Your task to perform on an android device: set default search engine in the chrome app Image 0: 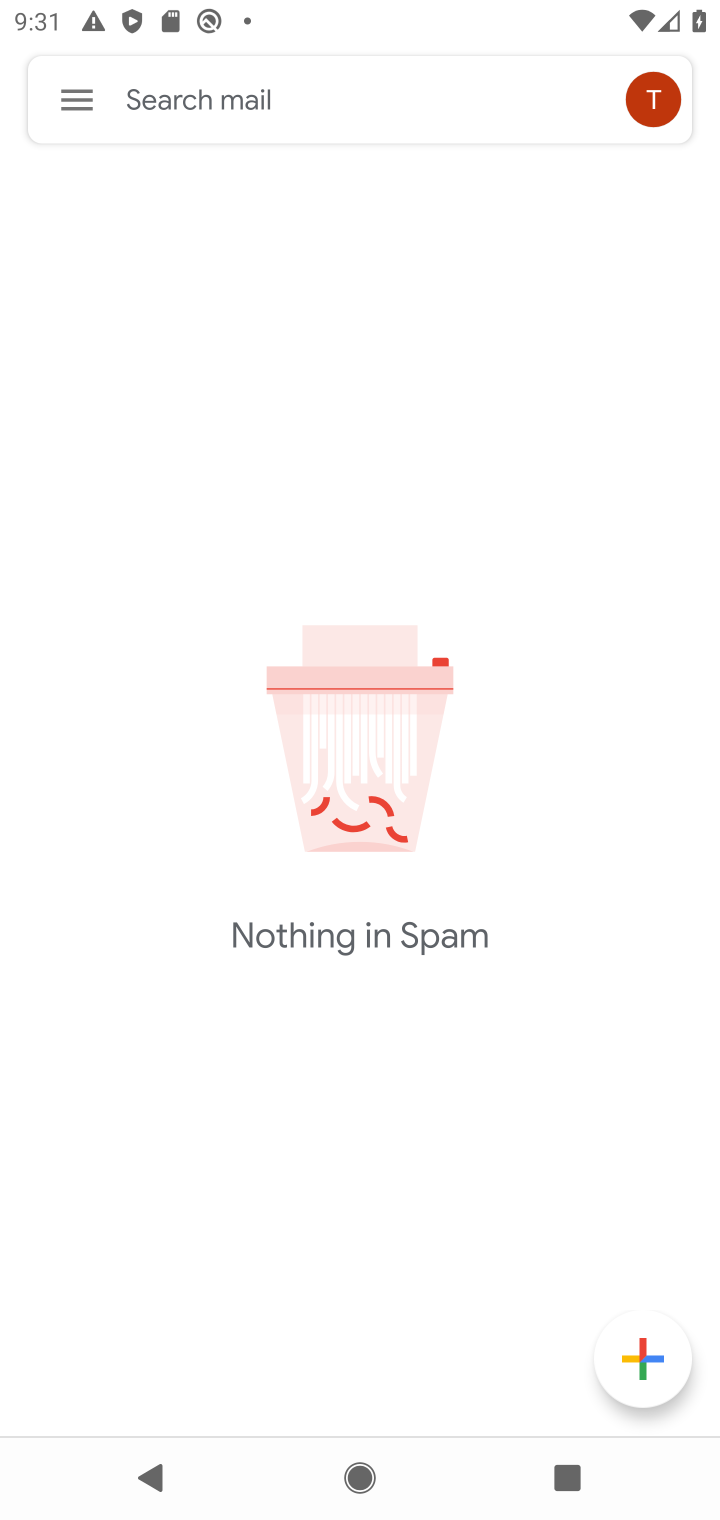
Step 0: press home button
Your task to perform on an android device: set default search engine in the chrome app Image 1: 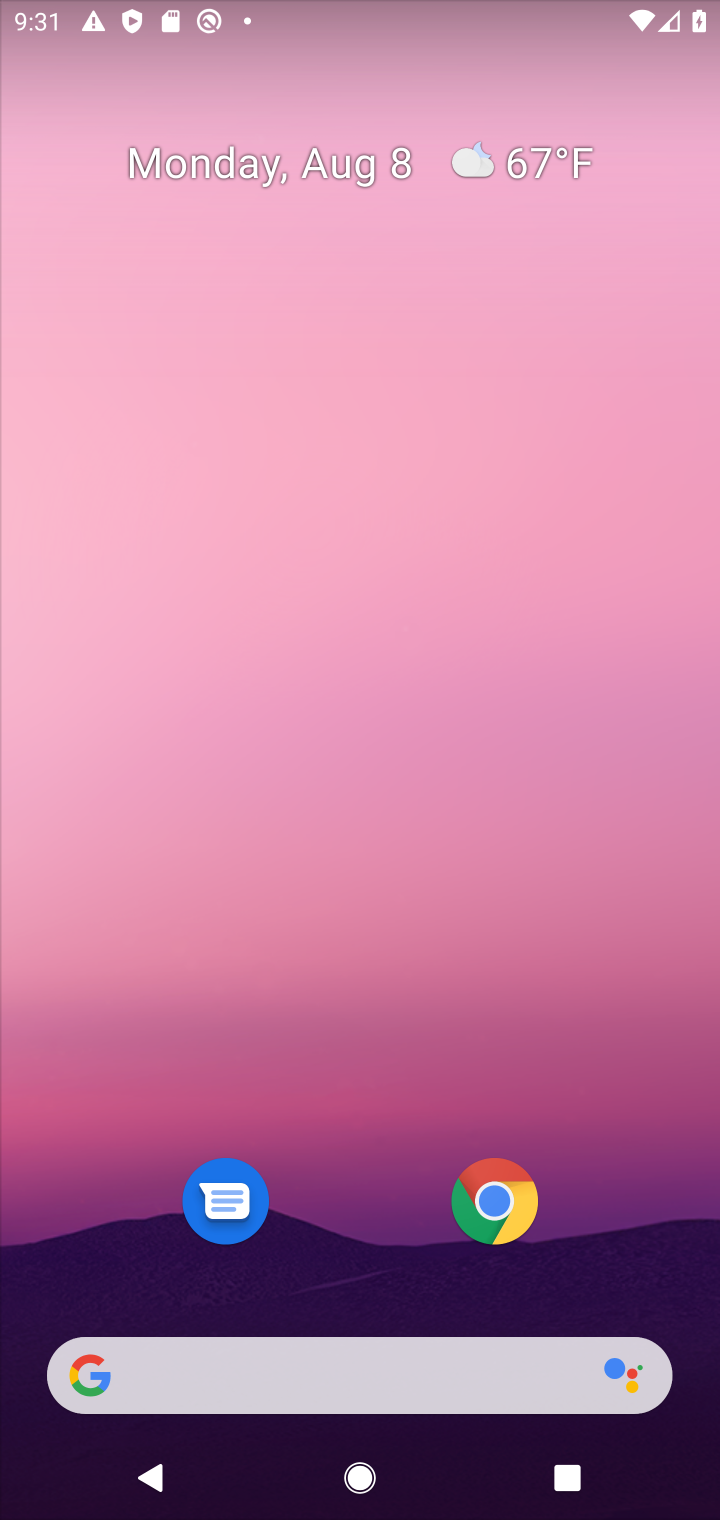
Step 1: drag from (390, 1239) to (436, 137)
Your task to perform on an android device: set default search engine in the chrome app Image 2: 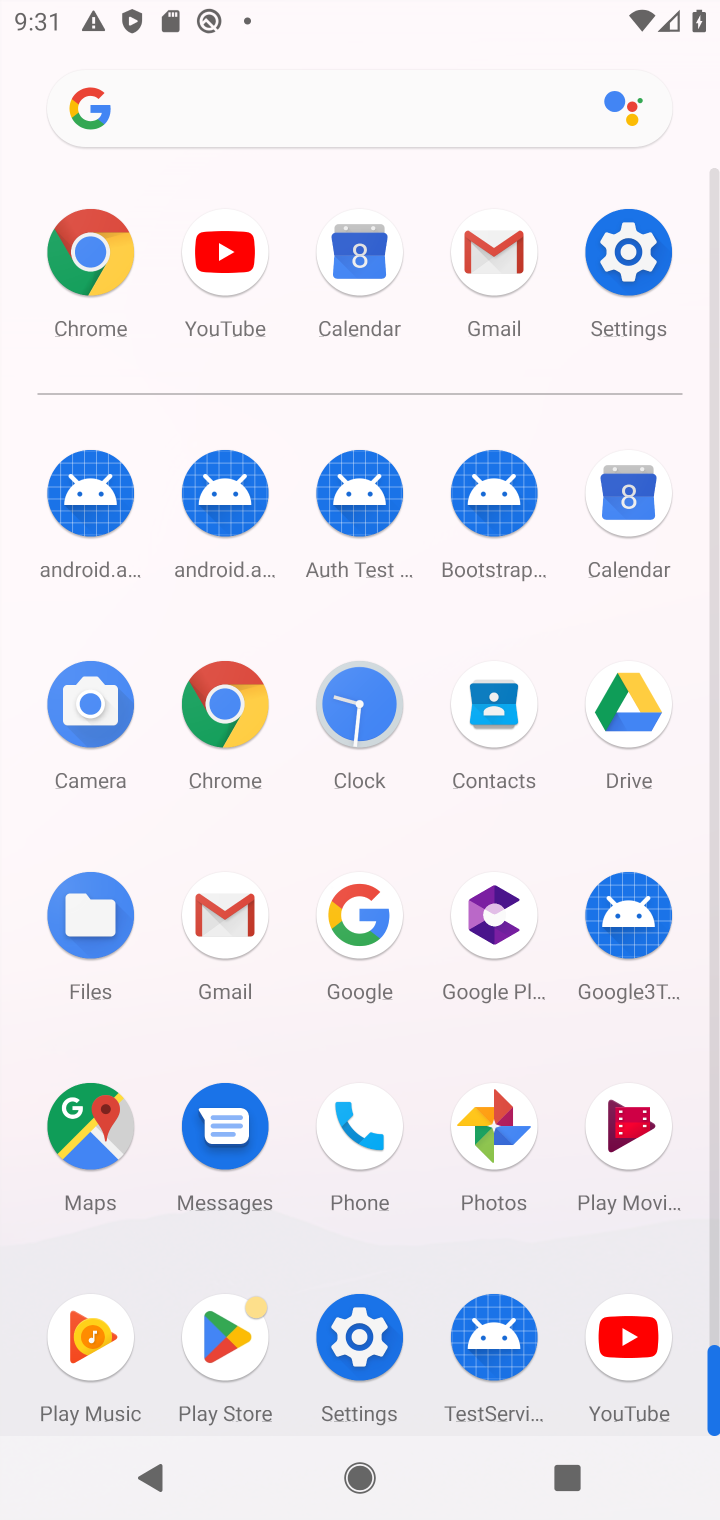
Step 2: click (221, 696)
Your task to perform on an android device: set default search engine in the chrome app Image 3: 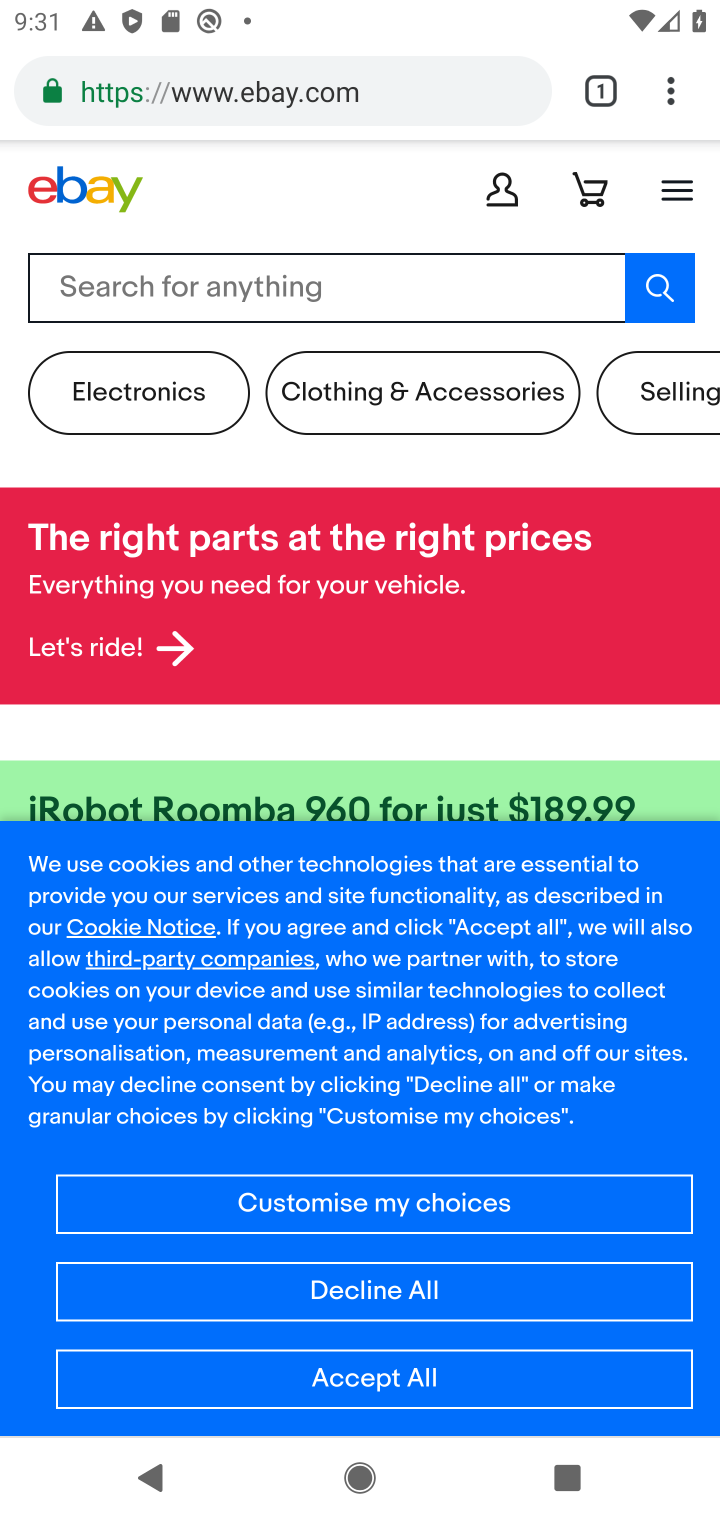
Step 3: click (672, 89)
Your task to perform on an android device: set default search engine in the chrome app Image 4: 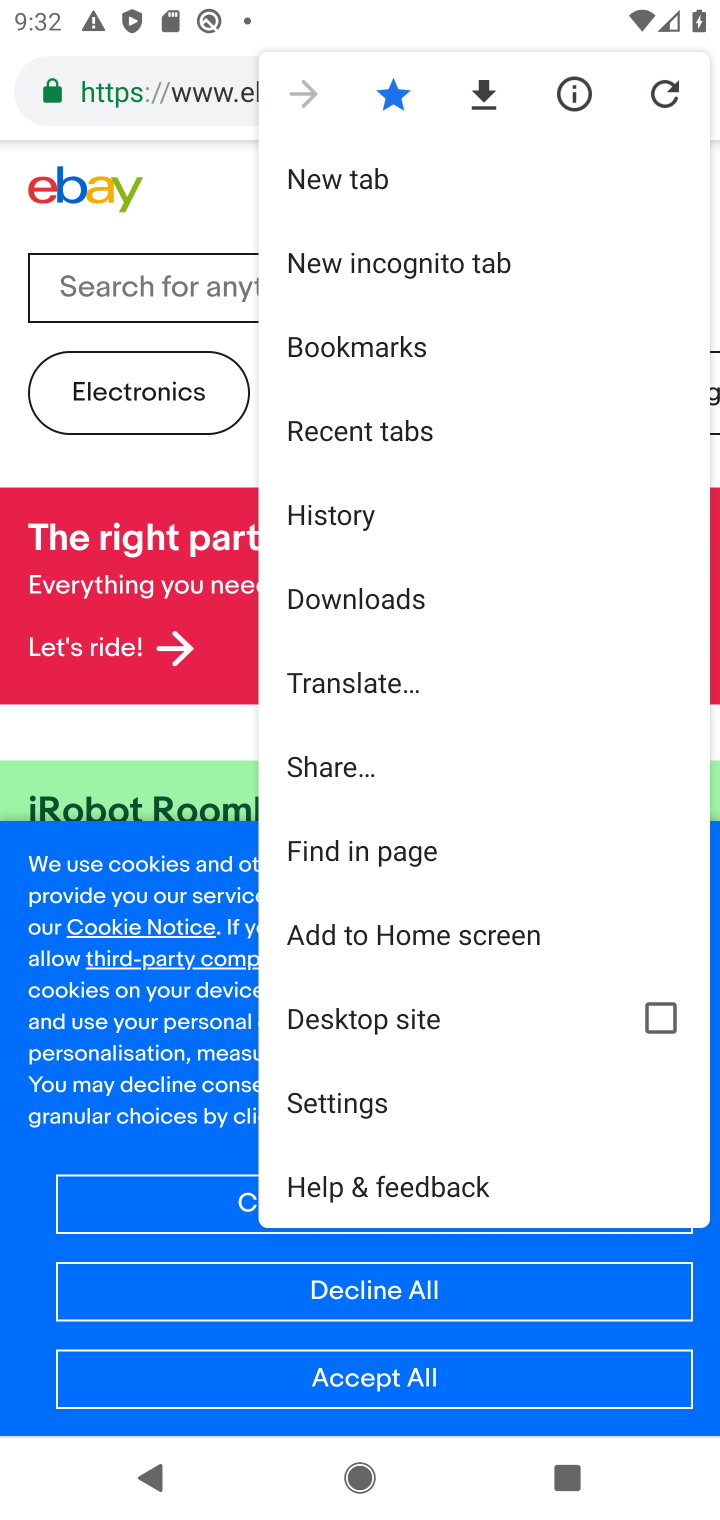
Step 4: click (357, 1105)
Your task to perform on an android device: set default search engine in the chrome app Image 5: 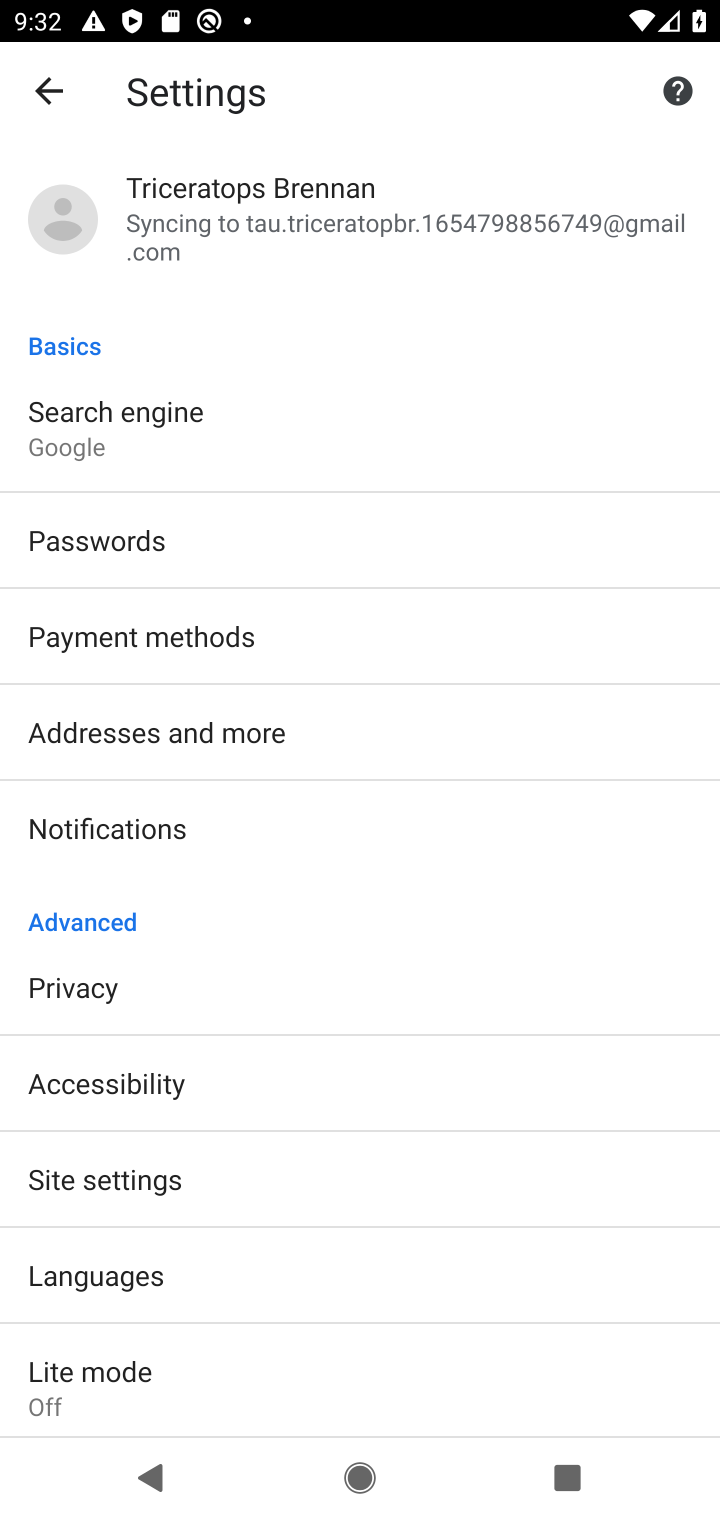
Step 5: drag from (471, 922) to (483, 644)
Your task to perform on an android device: set default search engine in the chrome app Image 6: 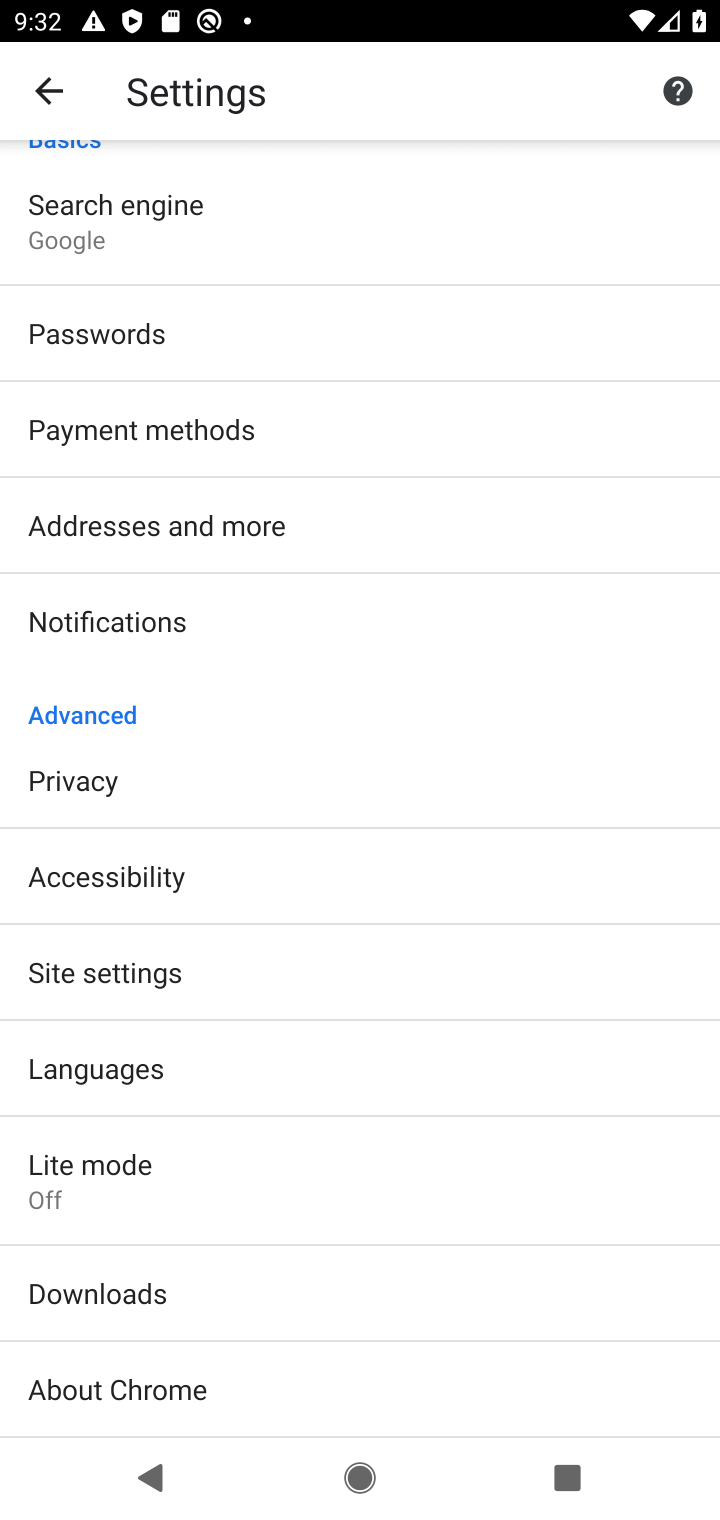
Step 6: drag from (496, 1187) to (532, 672)
Your task to perform on an android device: set default search engine in the chrome app Image 7: 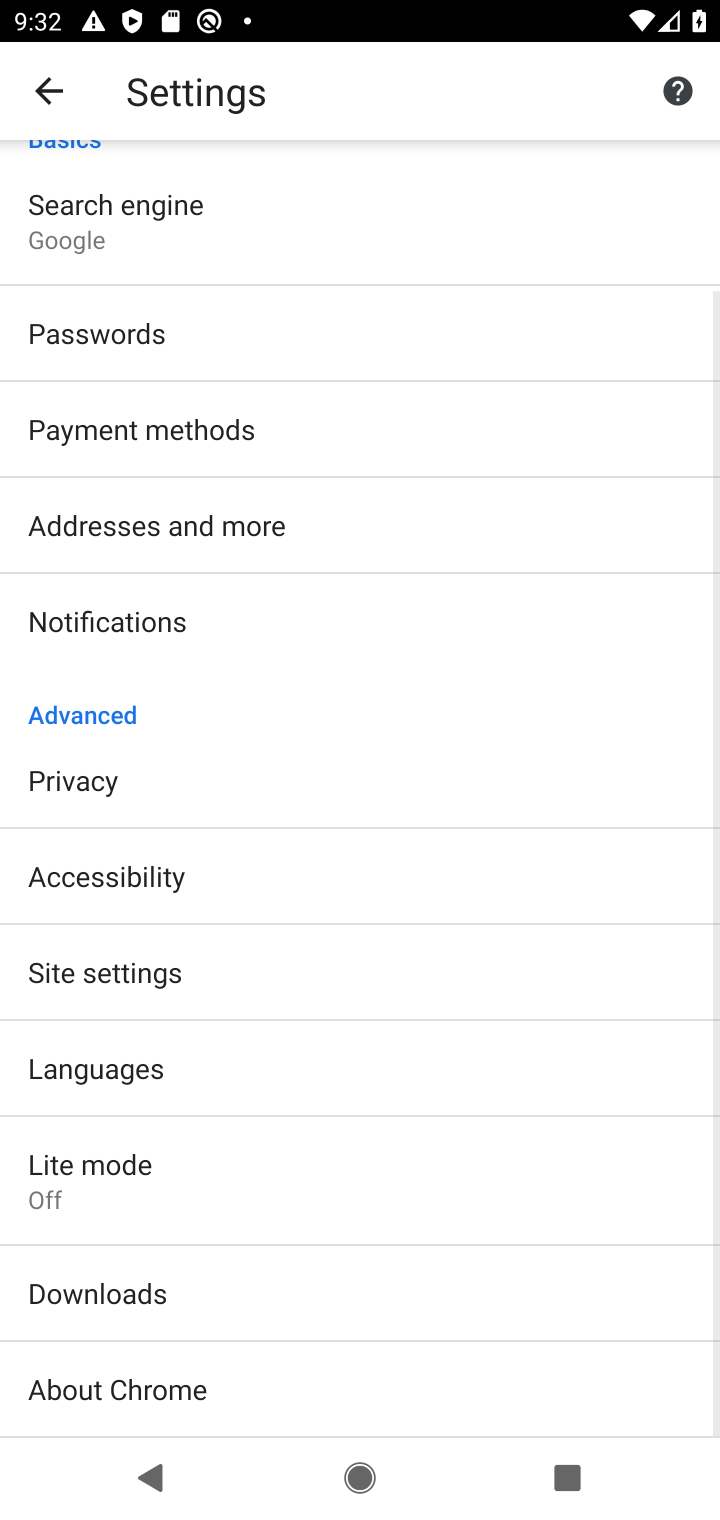
Step 7: drag from (544, 568) to (572, 940)
Your task to perform on an android device: set default search engine in the chrome app Image 8: 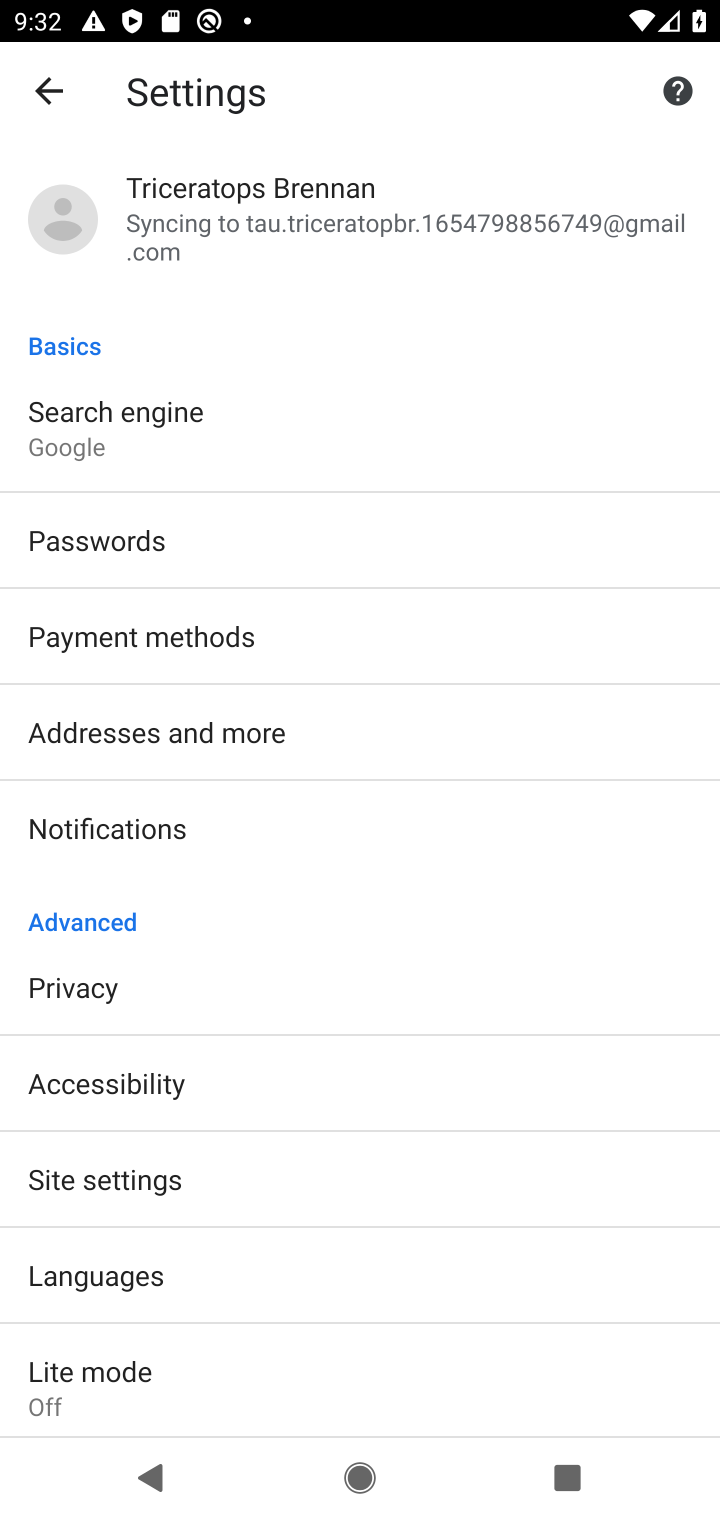
Step 8: drag from (535, 455) to (545, 935)
Your task to perform on an android device: set default search engine in the chrome app Image 9: 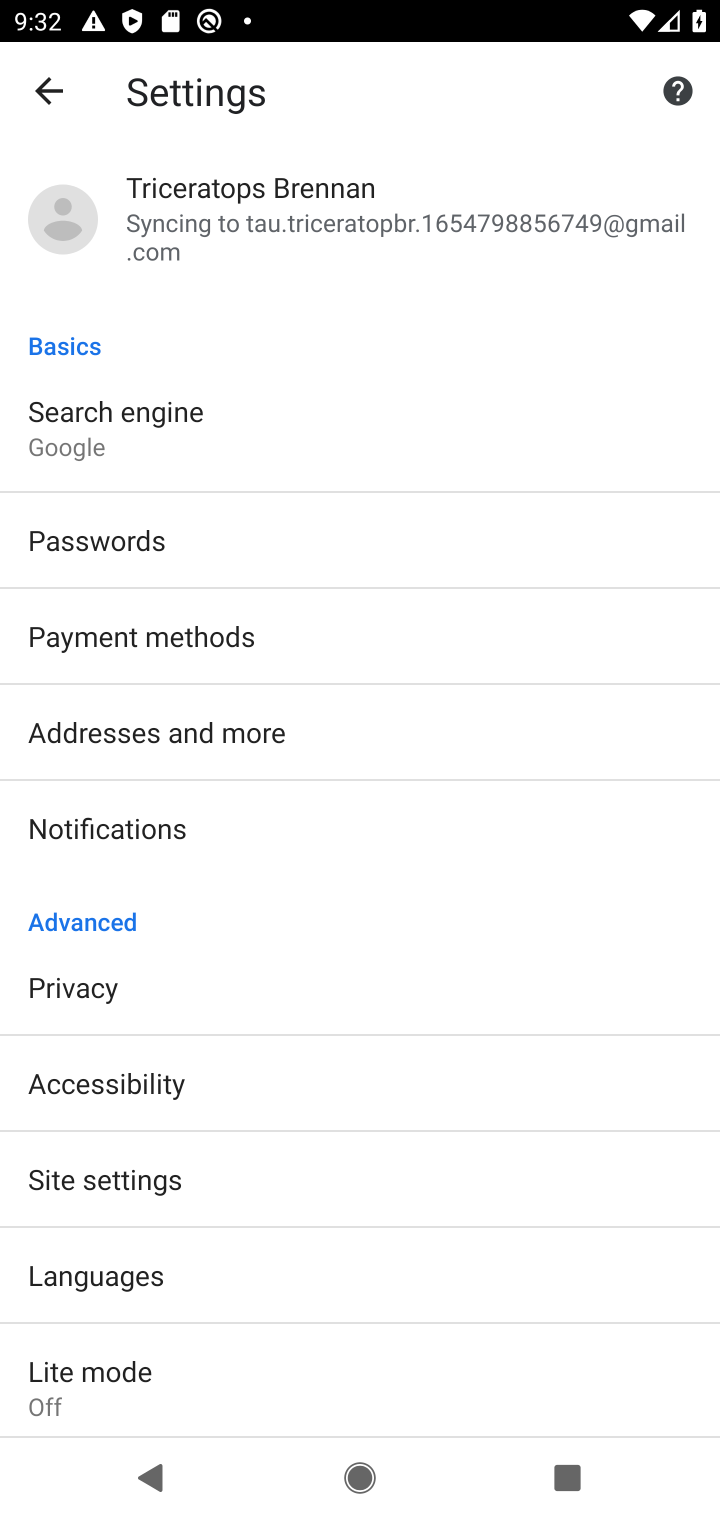
Step 9: click (132, 432)
Your task to perform on an android device: set default search engine in the chrome app Image 10: 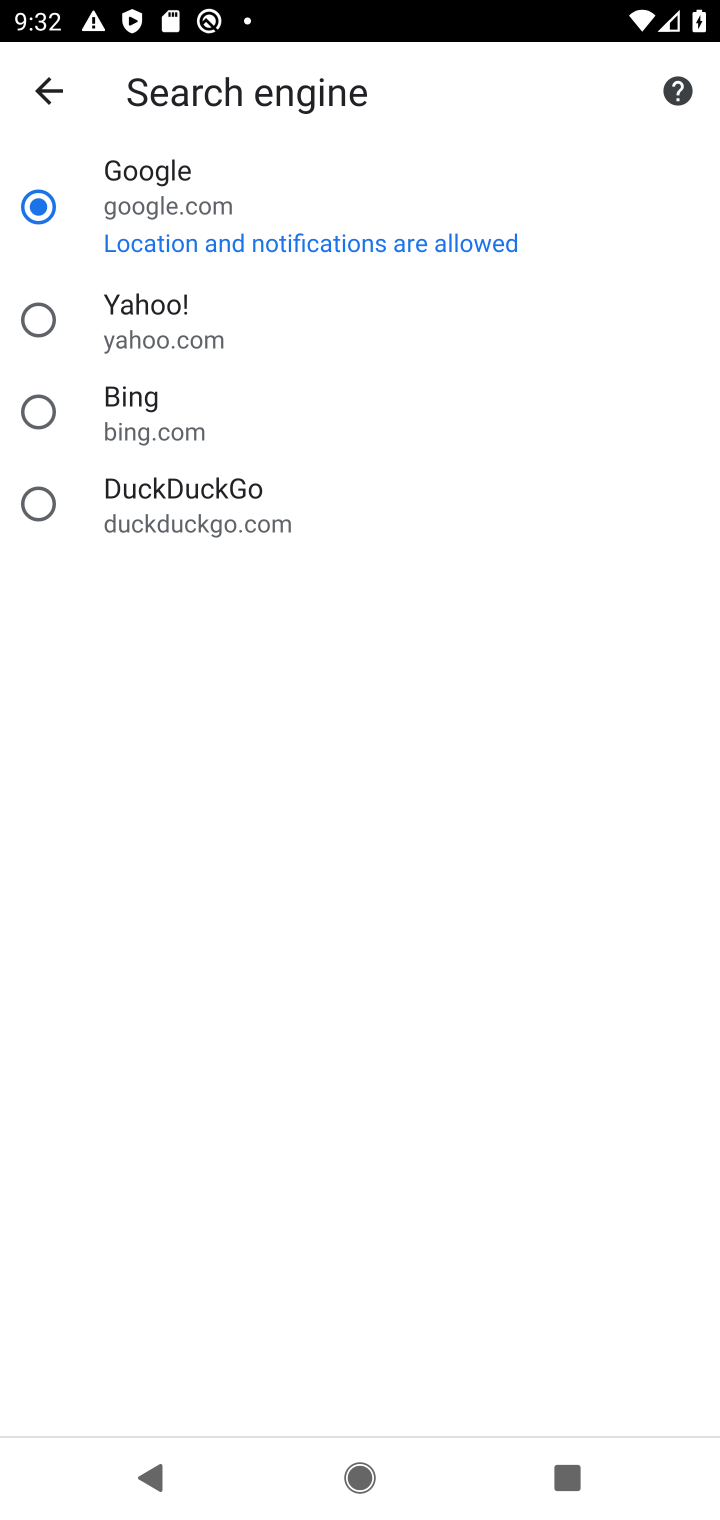
Step 10: click (21, 408)
Your task to perform on an android device: set default search engine in the chrome app Image 11: 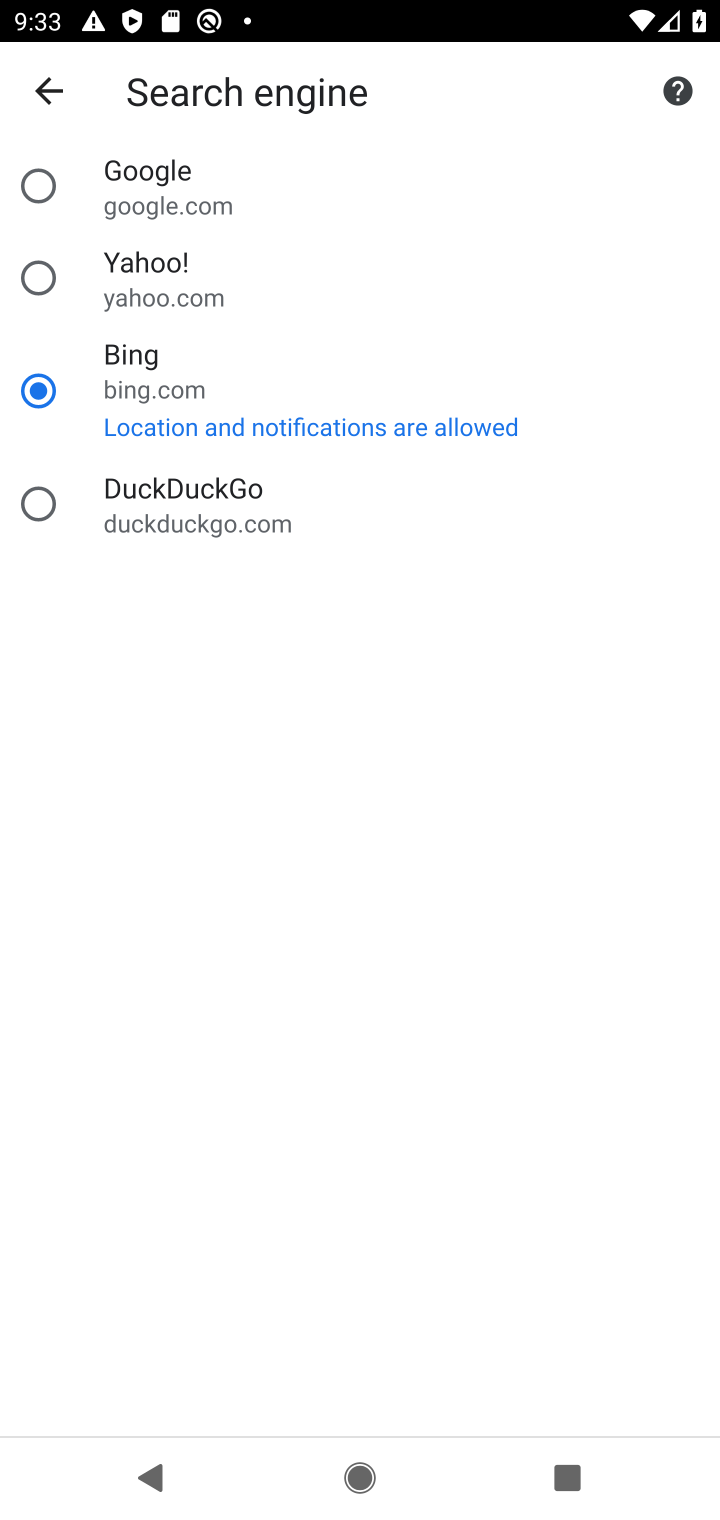
Step 11: task complete